Your task to perform on an android device: Go to privacy settings Image 0: 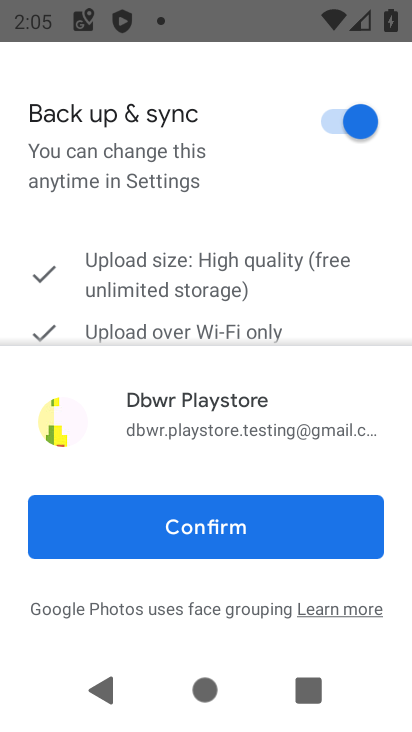
Step 0: press home button
Your task to perform on an android device: Go to privacy settings Image 1: 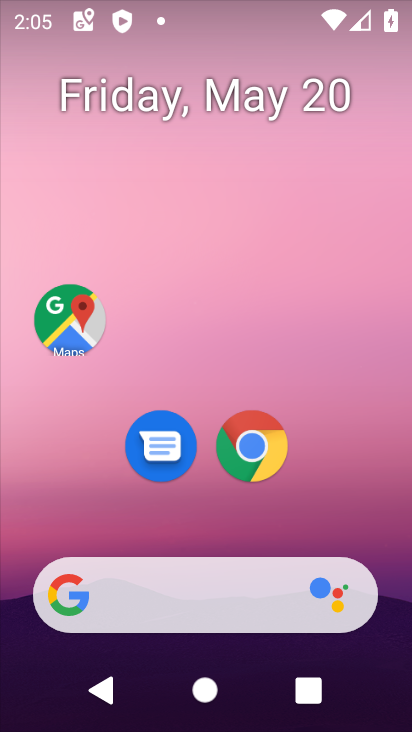
Step 1: drag from (354, 547) to (355, 15)
Your task to perform on an android device: Go to privacy settings Image 2: 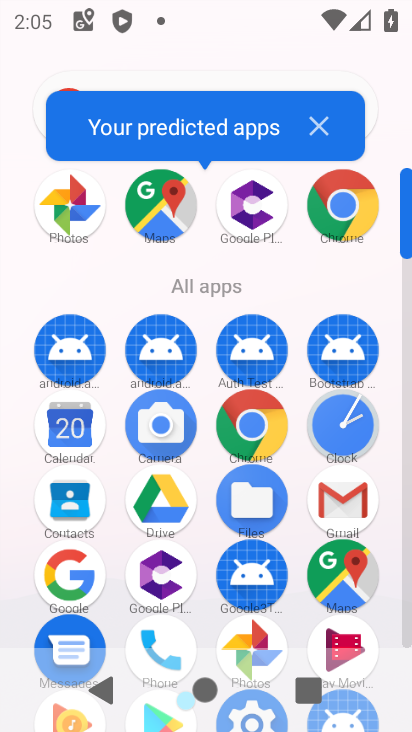
Step 2: click (407, 520)
Your task to perform on an android device: Go to privacy settings Image 3: 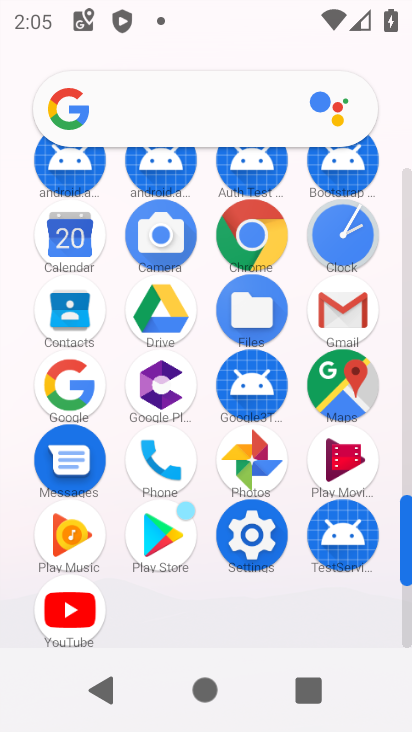
Step 3: click (253, 541)
Your task to perform on an android device: Go to privacy settings Image 4: 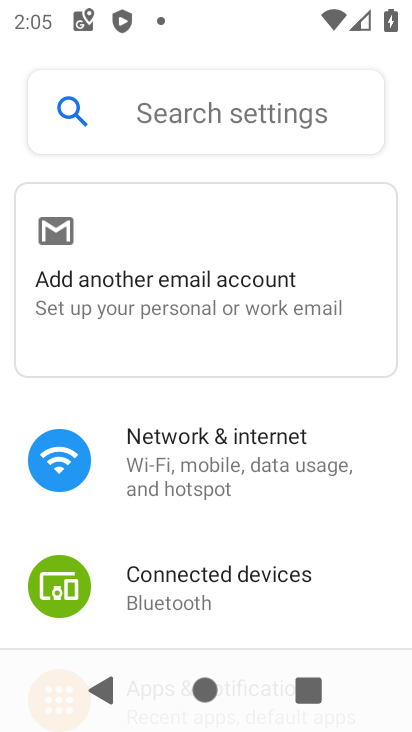
Step 4: drag from (351, 556) to (342, 296)
Your task to perform on an android device: Go to privacy settings Image 5: 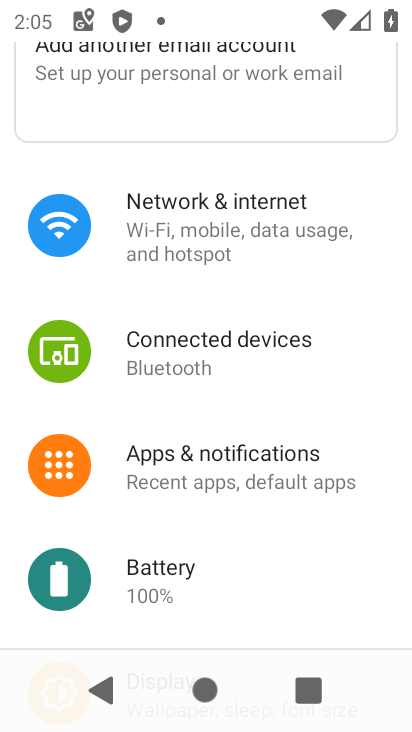
Step 5: drag from (361, 520) to (364, 288)
Your task to perform on an android device: Go to privacy settings Image 6: 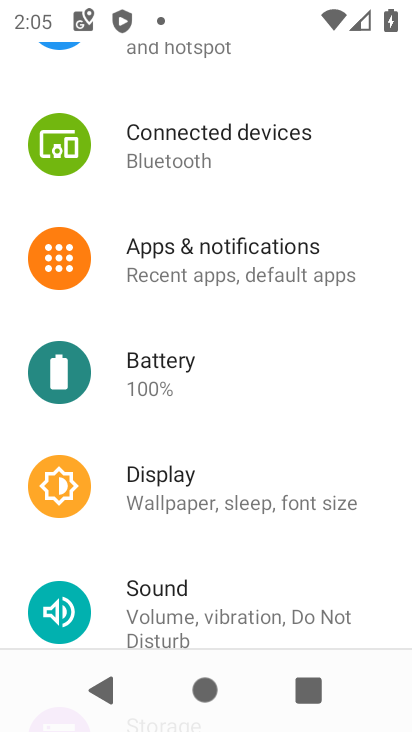
Step 6: drag from (357, 535) to (357, 296)
Your task to perform on an android device: Go to privacy settings Image 7: 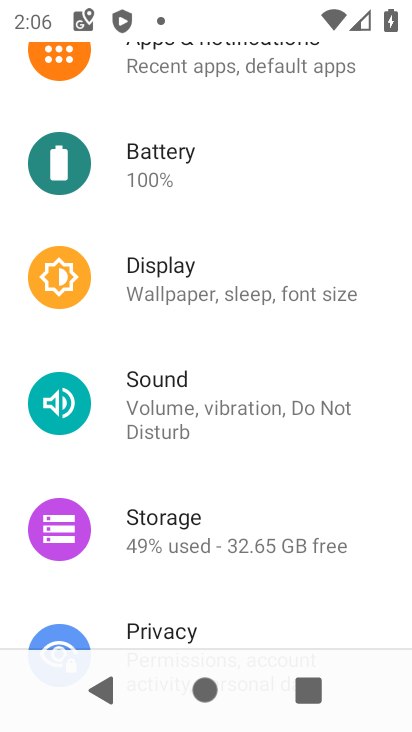
Step 7: drag from (322, 484) to (317, 272)
Your task to perform on an android device: Go to privacy settings Image 8: 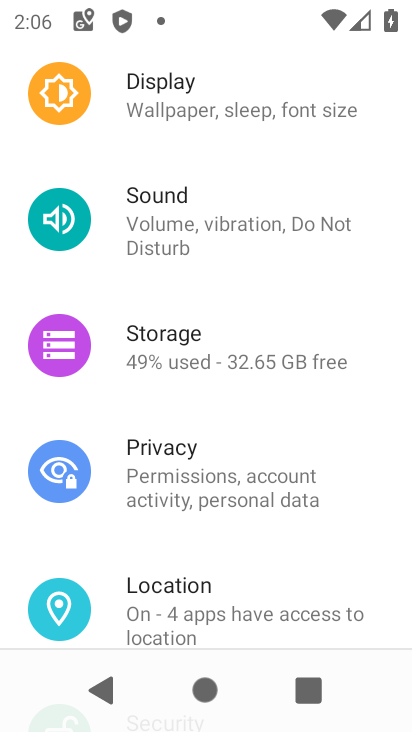
Step 8: click (143, 463)
Your task to perform on an android device: Go to privacy settings Image 9: 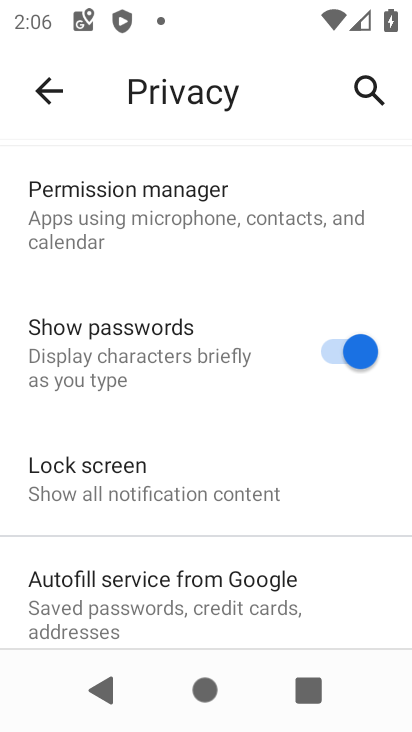
Step 9: task complete